Your task to perform on an android device: turn on javascript in the chrome app Image 0: 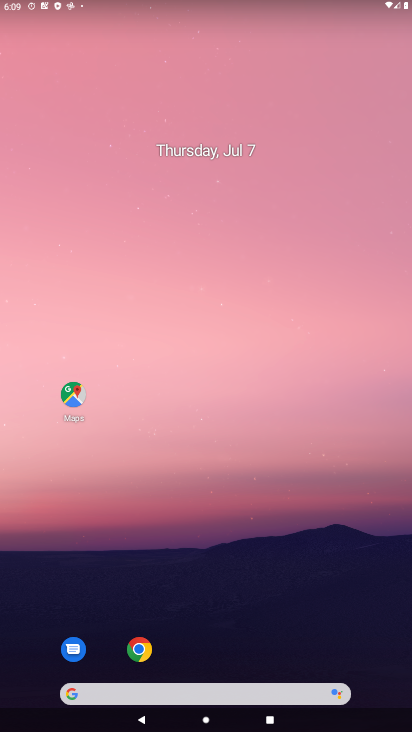
Step 0: drag from (332, 582) to (212, 1)
Your task to perform on an android device: turn on javascript in the chrome app Image 1: 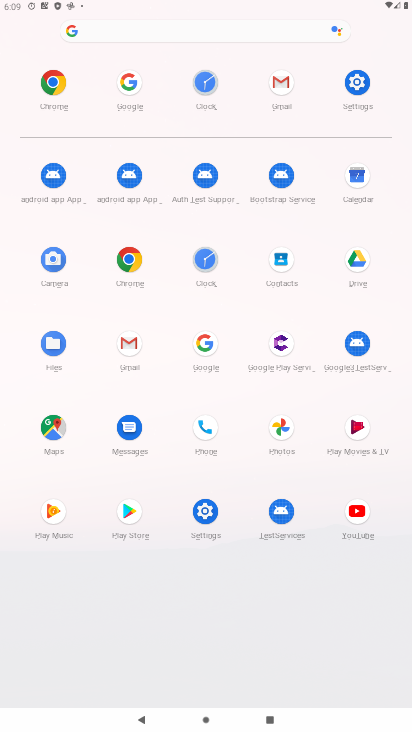
Step 1: click (56, 72)
Your task to perform on an android device: turn on javascript in the chrome app Image 2: 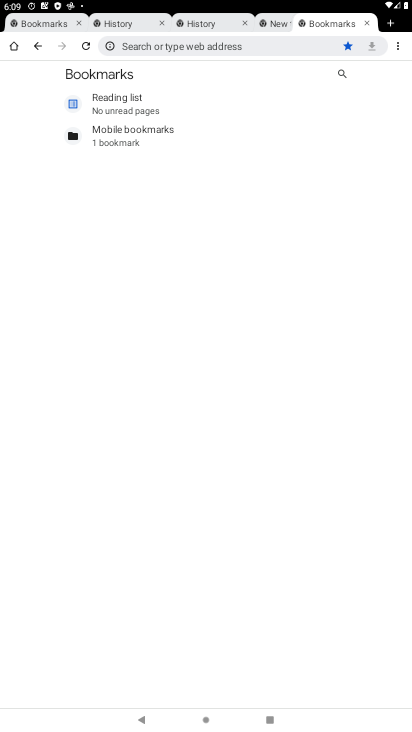
Step 2: click (403, 45)
Your task to perform on an android device: turn on javascript in the chrome app Image 3: 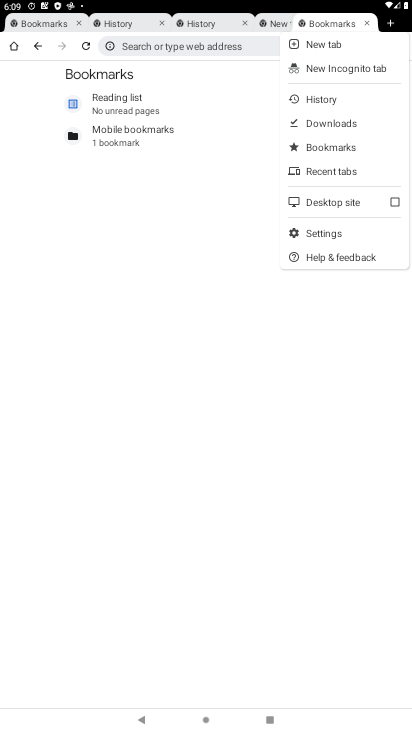
Step 3: click (312, 227)
Your task to perform on an android device: turn on javascript in the chrome app Image 4: 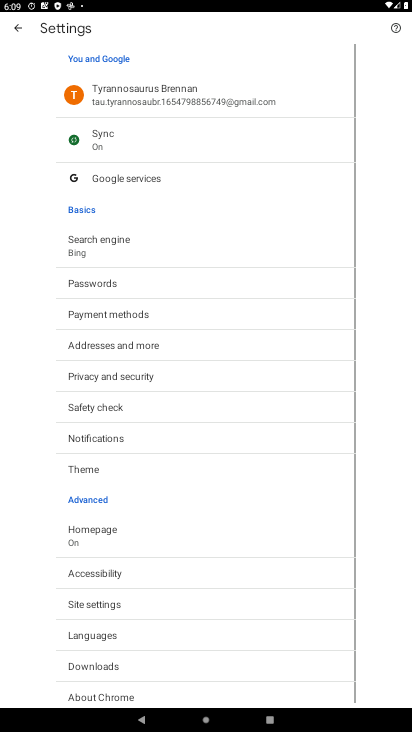
Step 4: click (120, 610)
Your task to perform on an android device: turn on javascript in the chrome app Image 5: 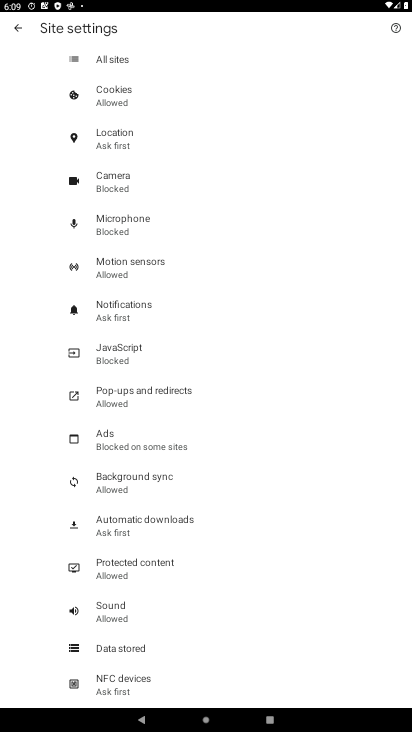
Step 5: click (119, 351)
Your task to perform on an android device: turn on javascript in the chrome app Image 6: 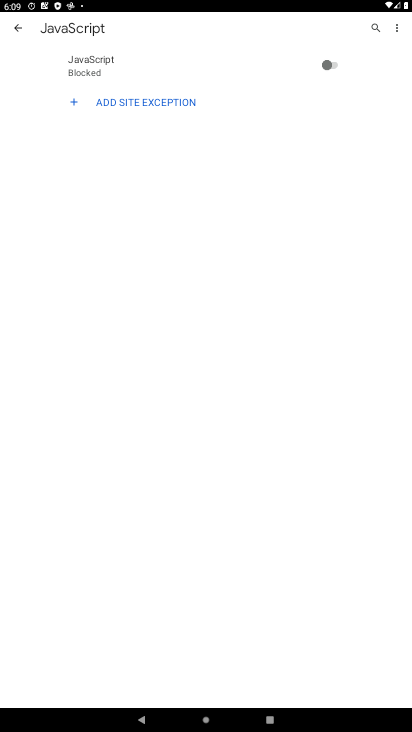
Step 6: click (335, 74)
Your task to perform on an android device: turn on javascript in the chrome app Image 7: 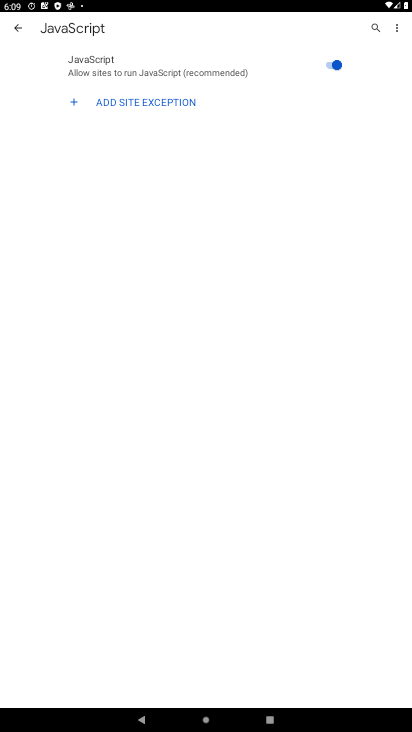
Step 7: task complete